Your task to perform on an android device: choose inbox layout in the gmail app Image 0: 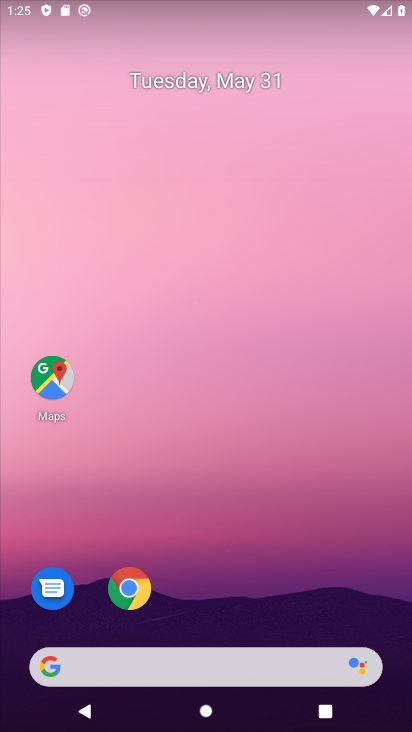
Step 0: drag from (250, 616) to (144, 136)
Your task to perform on an android device: choose inbox layout in the gmail app Image 1: 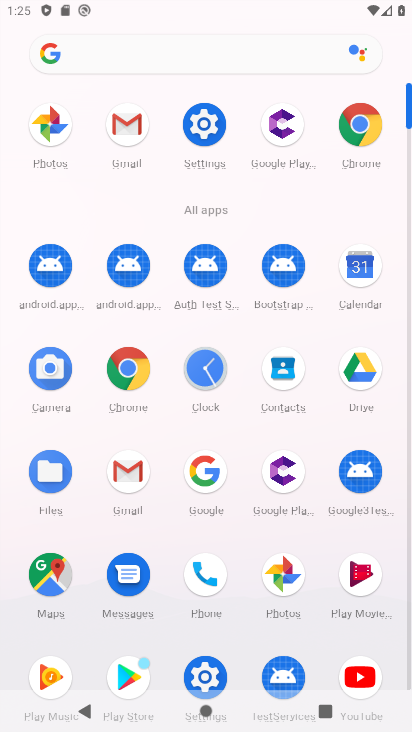
Step 1: click (122, 139)
Your task to perform on an android device: choose inbox layout in the gmail app Image 2: 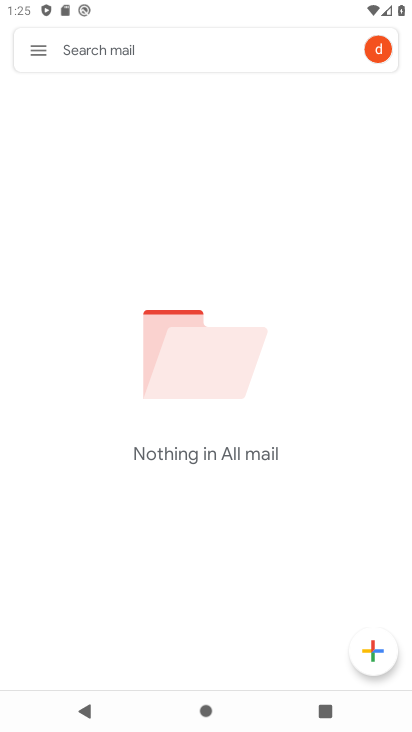
Step 2: click (40, 42)
Your task to perform on an android device: choose inbox layout in the gmail app Image 3: 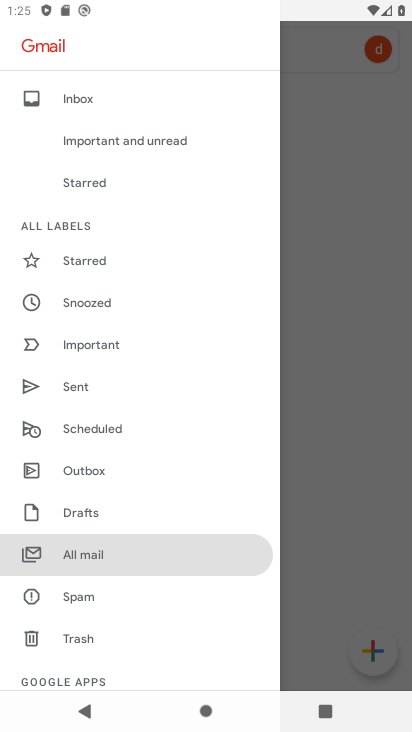
Step 3: drag from (126, 641) to (99, 217)
Your task to perform on an android device: choose inbox layout in the gmail app Image 4: 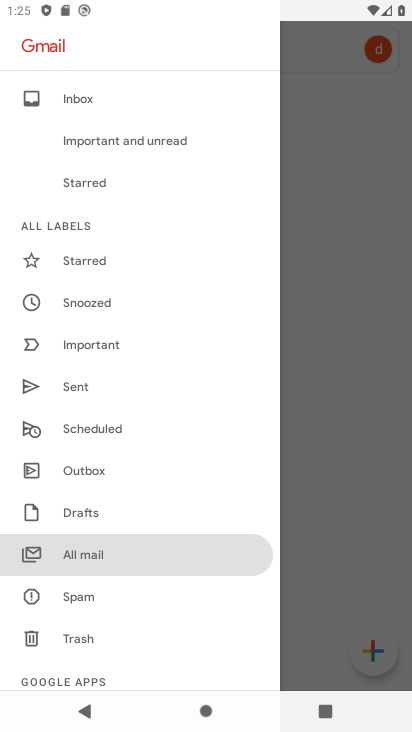
Step 4: drag from (87, 618) to (81, 151)
Your task to perform on an android device: choose inbox layout in the gmail app Image 5: 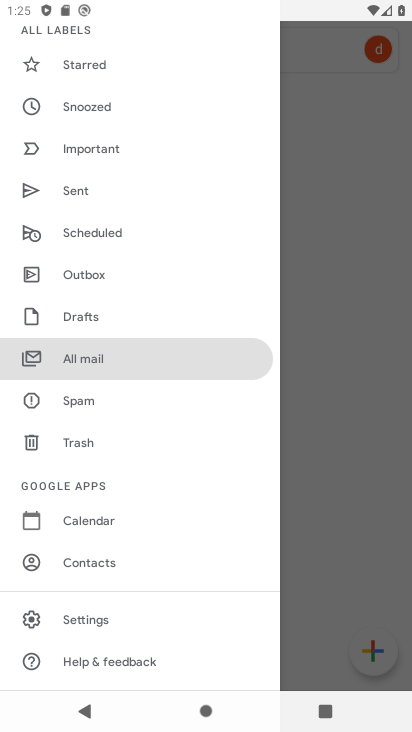
Step 5: click (105, 625)
Your task to perform on an android device: choose inbox layout in the gmail app Image 6: 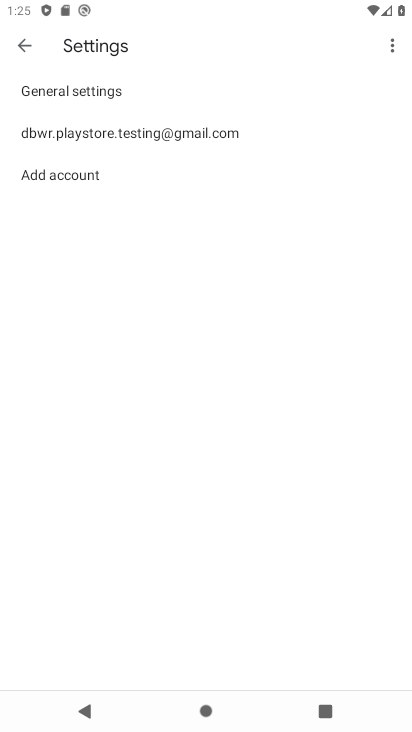
Step 6: click (104, 134)
Your task to perform on an android device: choose inbox layout in the gmail app Image 7: 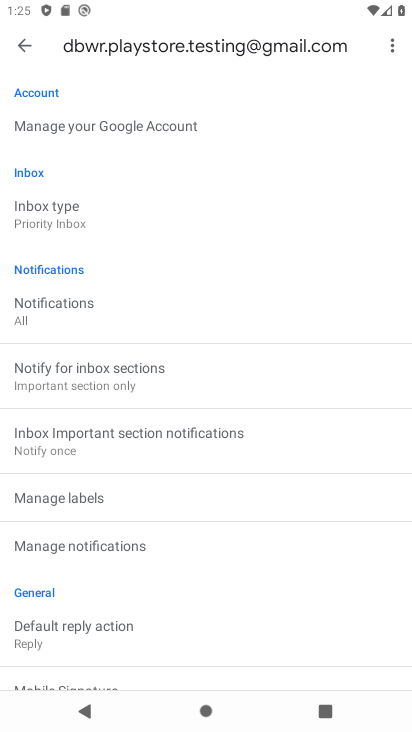
Step 7: click (102, 217)
Your task to perform on an android device: choose inbox layout in the gmail app Image 8: 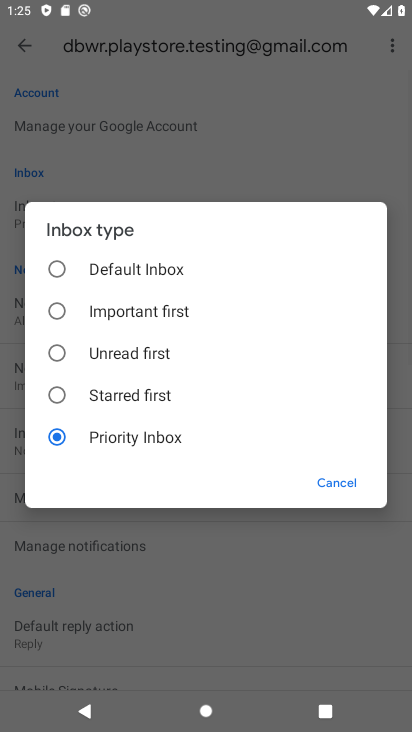
Step 8: click (124, 263)
Your task to perform on an android device: choose inbox layout in the gmail app Image 9: 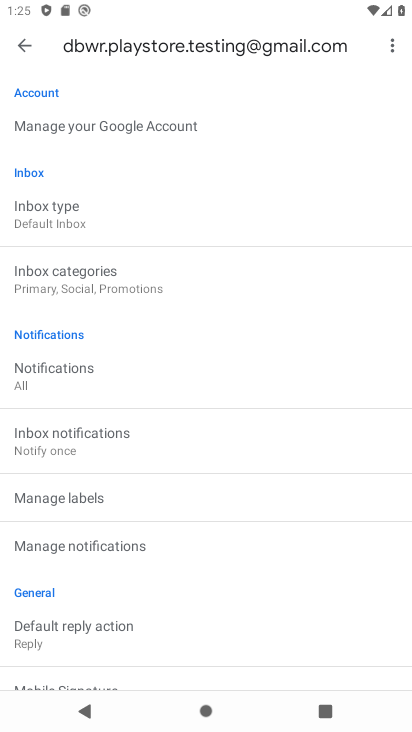
Step 9: task complete